Your task to perform on an android device: Open the calendar app, open the side menu, and click the "Day" option Image 0: 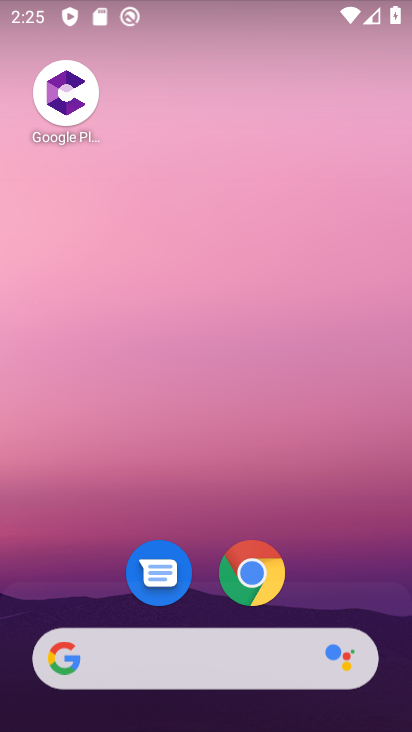
Step 0: drag from (343, 582) to (246, 159)
Your task to perform on an android device: Open the calendar app, open the side menu, and click the "Day" option Image 1: 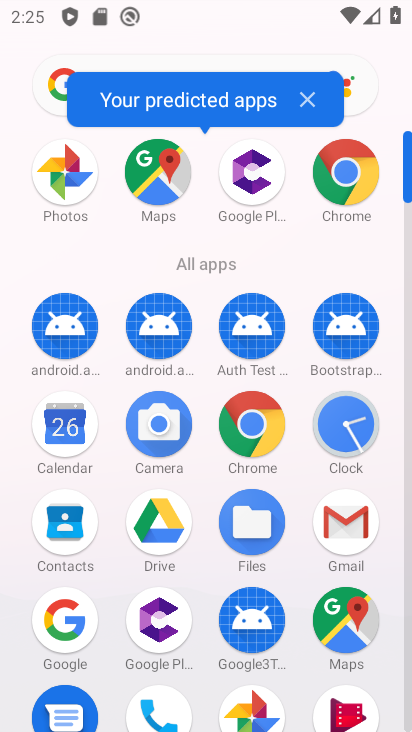
Step 1: click (64, 426)
Your task to perform on an android device: Open the calendar app, open the side menu, and click the "Day" option Image 2: 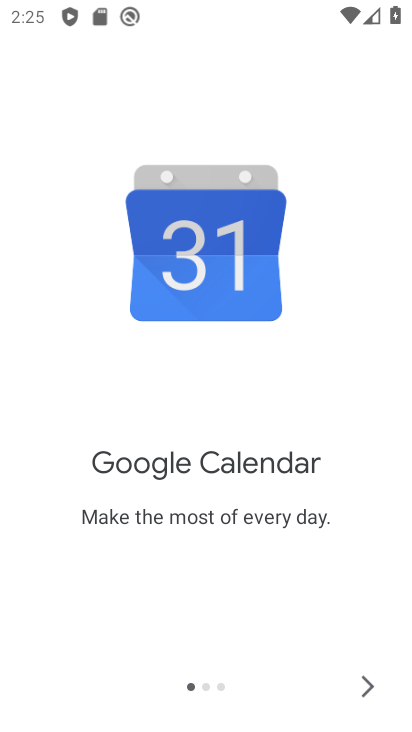
Step 2: click (370, 685)
Your task to perform on an android device: Open the calendar app, open the side menu, and click the "Day" option Image 3: 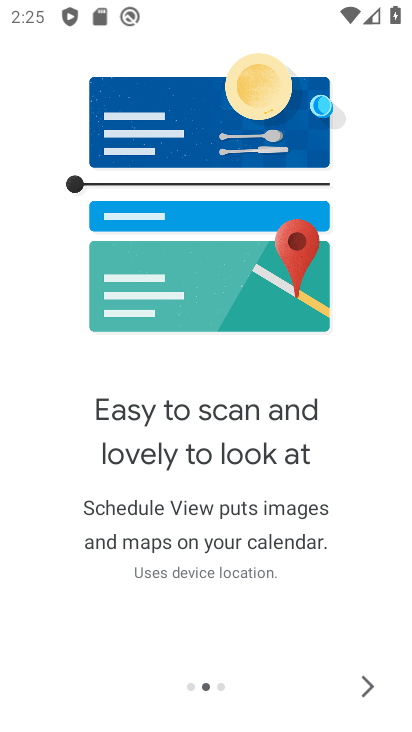
Step 3: click (370, 685)
Your task to perform on an android device: Open the calendar app, open the side menu, and click the "Day" option Image 4: 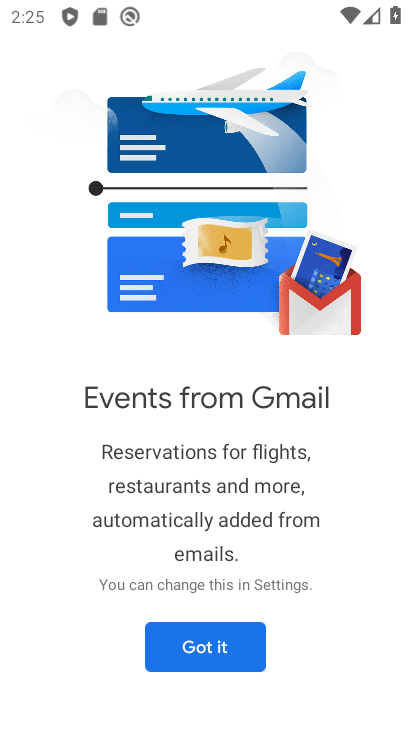
Step 4: click (209, 646)
Your task to perform on an android device: Open the calendar app, open the side menu, and click the "Day" option Image 5: 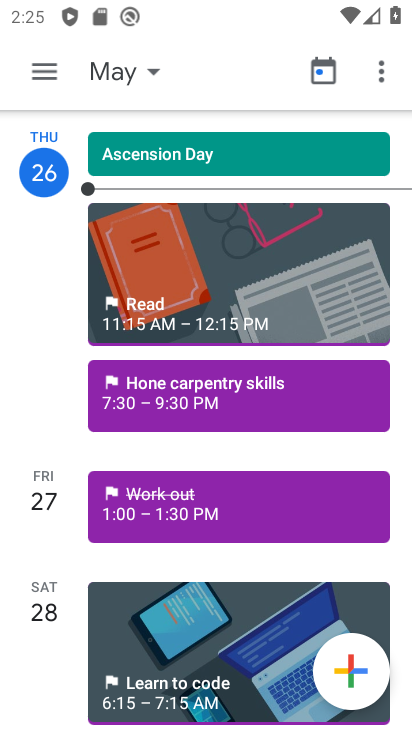
Step 5: click (46, 72)
Your task to perform on an android device: Open the calendar app, open the side menu, and click the "Day" option Image 6: 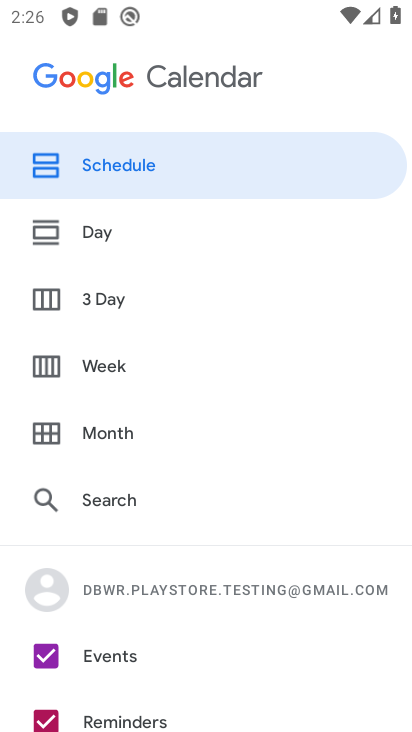
Step 6: click (93, 230)
Your task to perform on an android device: Open the calendar app, open the side menu, and click the "Day" option Image 7: 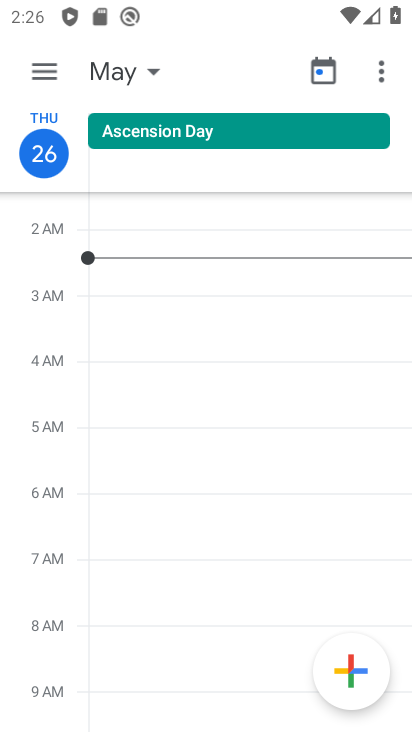
Step 7: task complete